Your task to perform on an android device: add a label to a message in the gmail app Image 0: 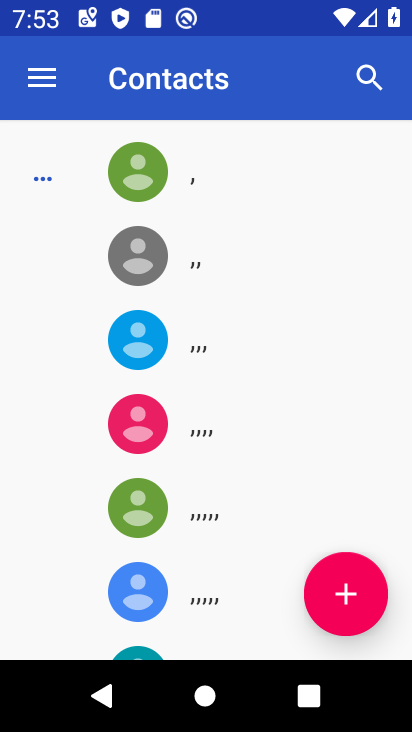
Step 0: press back button
Your task to perform on an android device: add a label to a message in the gmail app Image 1: 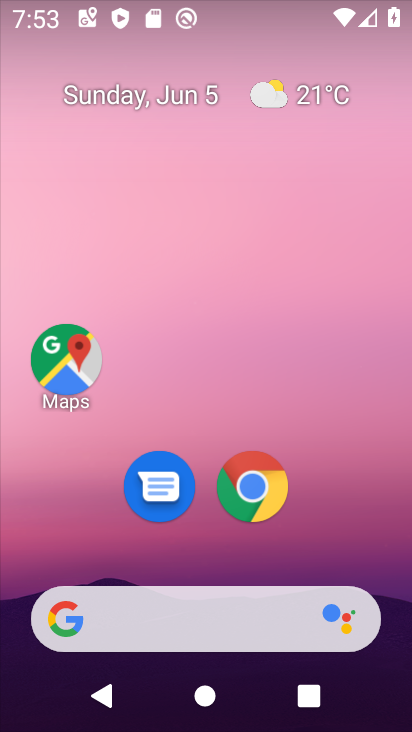
Step 1: drag from (192, 577) to (255, 36)
Your task to perform on an android device: add a label to a message in the gmail app Image 2: 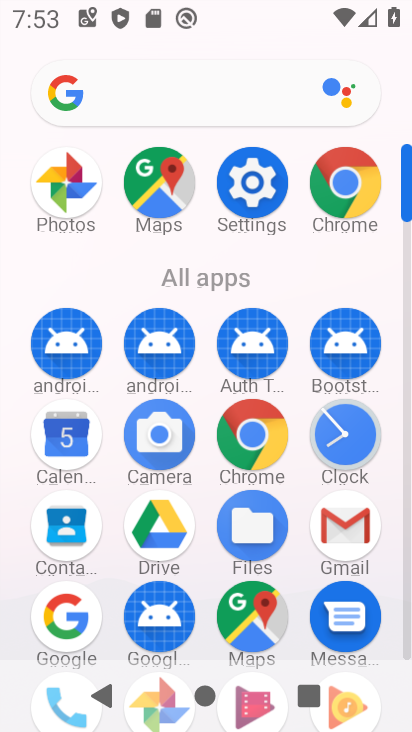
Step 2: click (347, 515)
Your task to perform on an android device: add a label to a message in the gmail app Image 3: 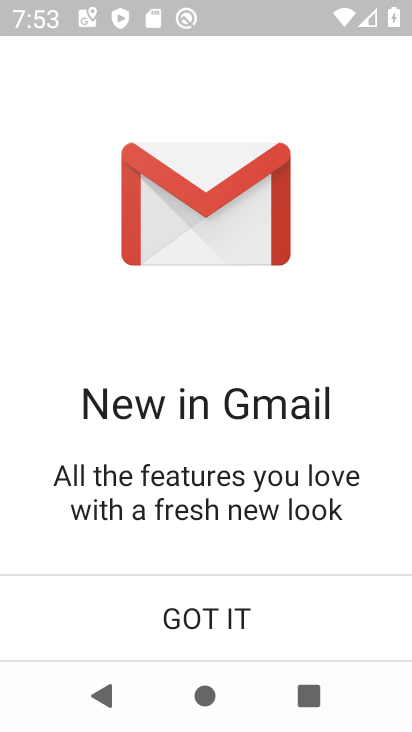
Step 3: click (220, 623)
Your task to perform on an android device: add a label to a message in the gmail app Image 4: 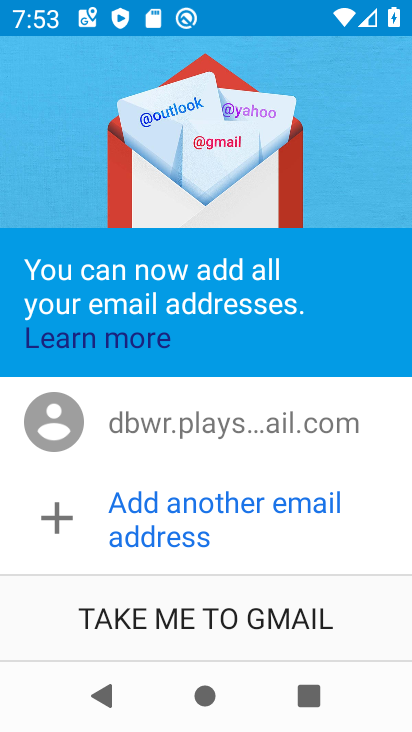
Step 4: click (222, 617)
Your task to perform on an android device: add a label to a message in the gmail app Image 5: 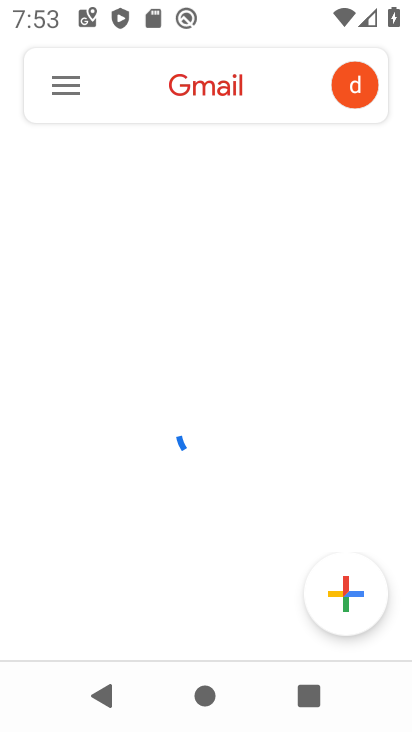
Step 5: click (59, 83)
Your task to perform on an android device: add a label to a message in the gmail app Image 6: 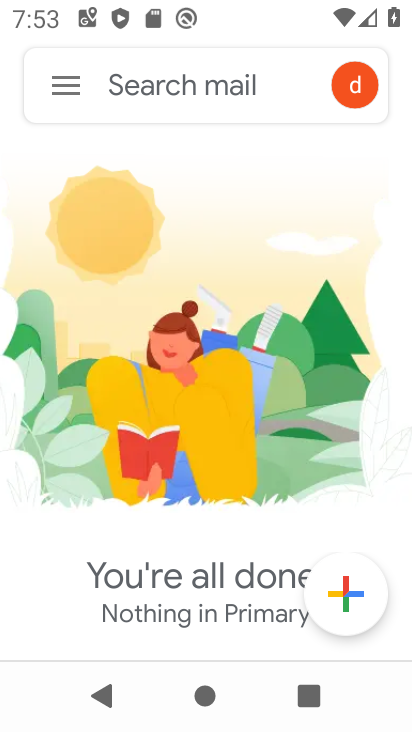
Step 6: click (81, 85)
Your task to perform on an android device: add a label to a message in the gmail app Image 7: 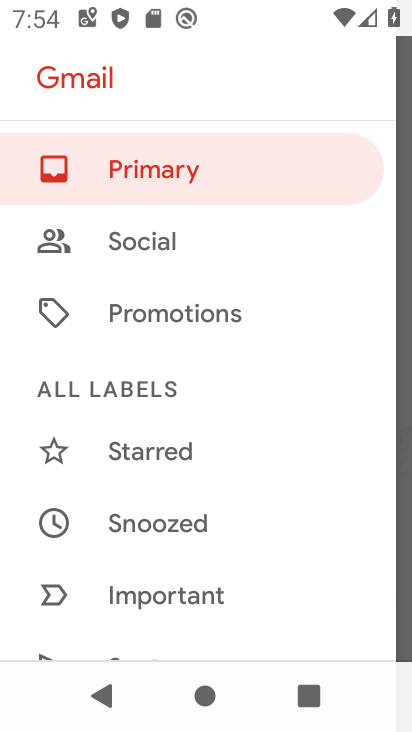
Step 7: drag from (204, 604) to (255, 135)
Your task to perform on an android device: add a label to a message in the gmail app Image 8: 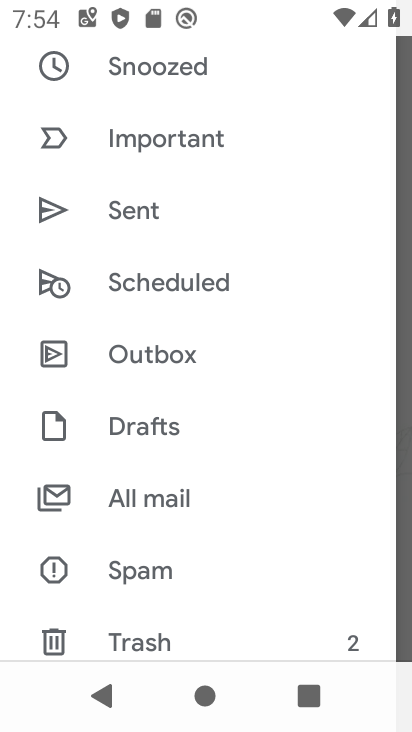
Step 8: click (175, 495)
Your task to perform on an android device: add a label to a message in the gmail app Image 9: 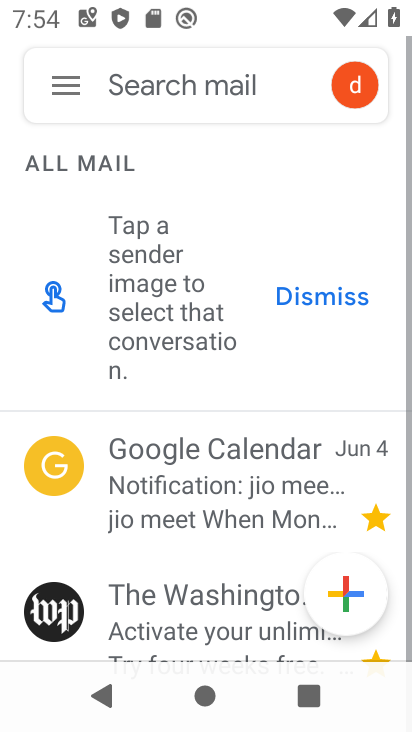
Step 9: drag from (207, 636) to (258, 292)
Your task to perform on an android device: add a label to a message in the gmail app Image 10: 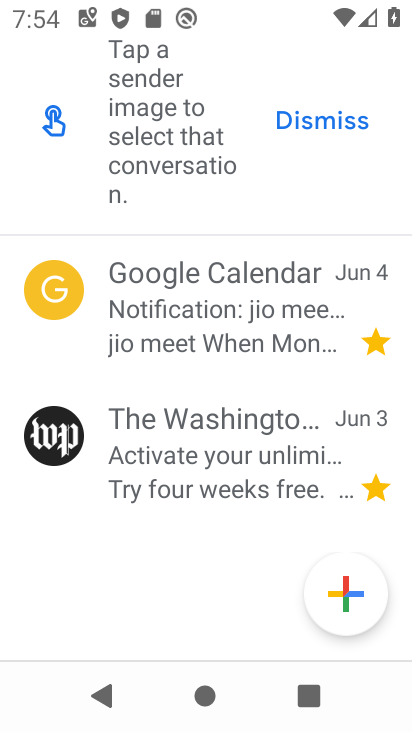
Step 10: click (210, 302)
Your task to perform on an android device: add a label to a message in the gmail app Image 11: 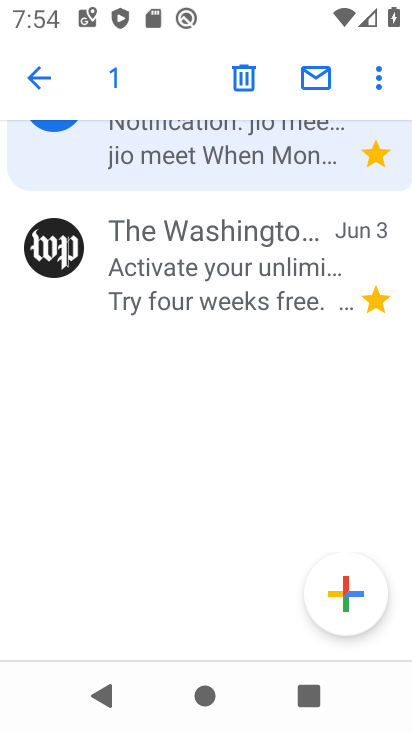
Step 11: click (380, 80)
Your task to perform on an android device: add a label to a message in the gmail app Image 12: 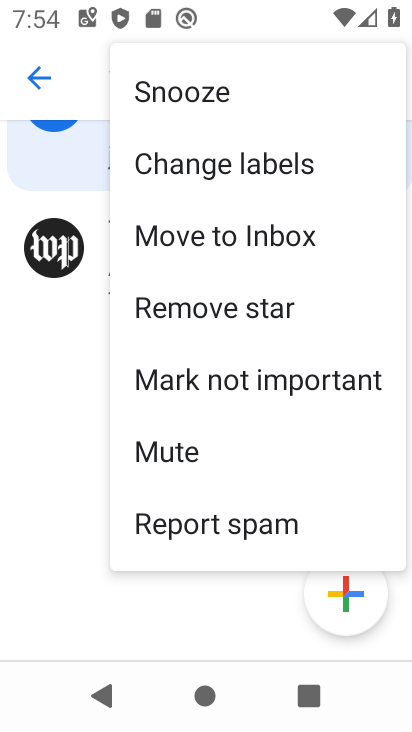
Step 12: click (259, 167)
Your task to perform on an android device: add a label to a message in the gmail app Image 13: 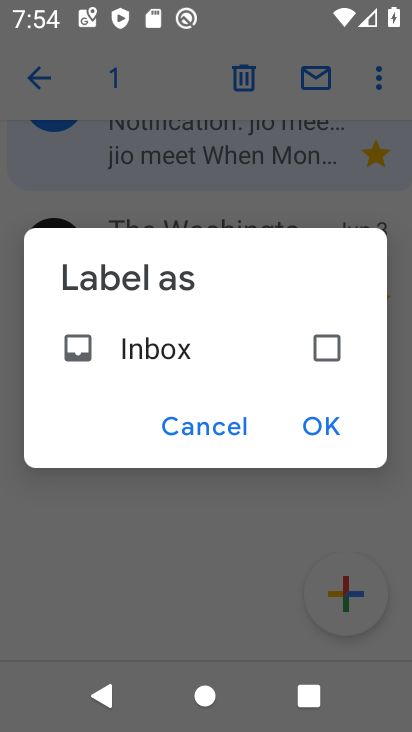
Step 13: click (316, 349)
Your task to perform on an android device: add a label to a message in the gmail app Image 14: 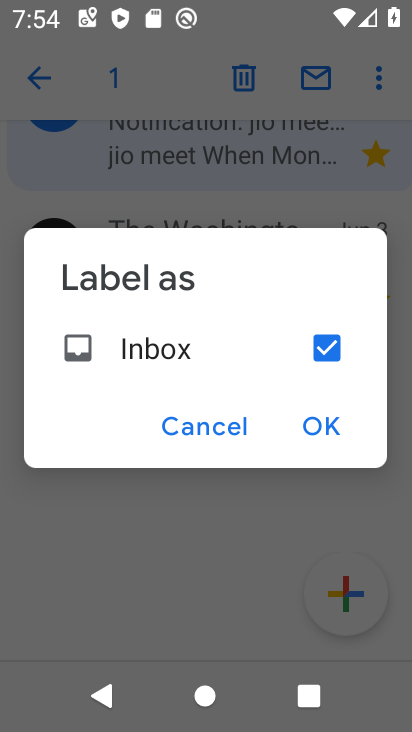
Step 14: click (325, 423)
Your task to perform on an android device: add a label to a message in the gmail app Image 15: 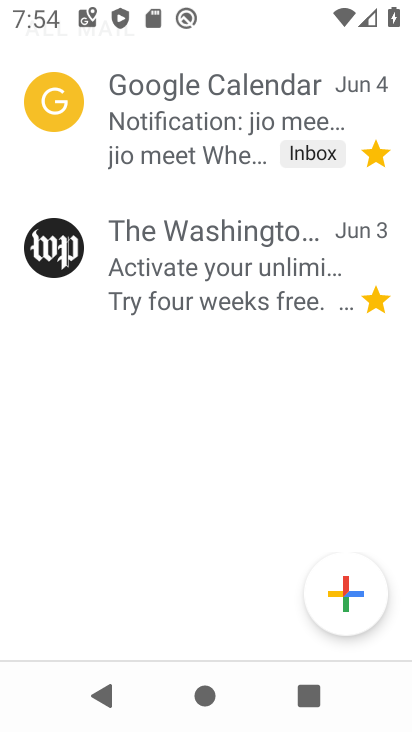
Step 15: task complete